Your task to perform on an android device: turn off priority inbox in the gmail app Image 0: 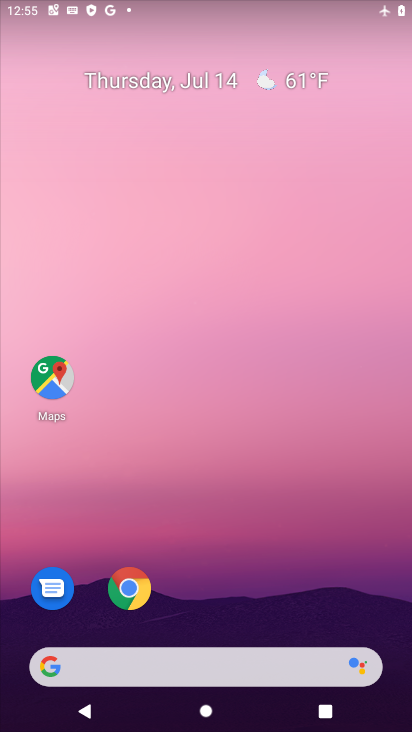
Step 0: drag from (225, 492) to (226, 13)
Your task to perform on an android device: turn off priority inbox in the gmail app Image 1: 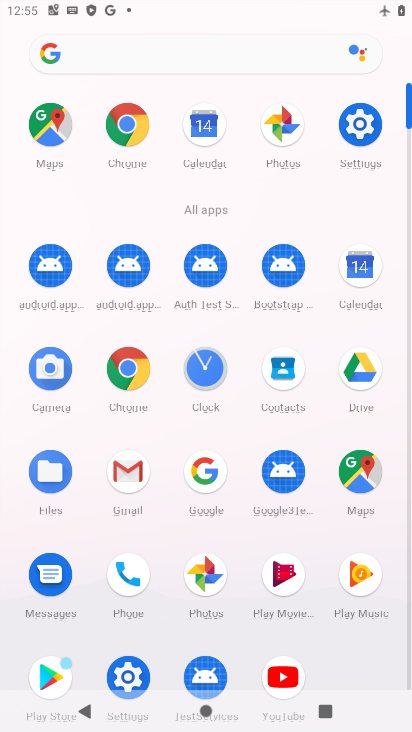
Step 1: click (134, 483)
Your task to perform on an android device: turn off priority inbox in the gmail app Image 2: 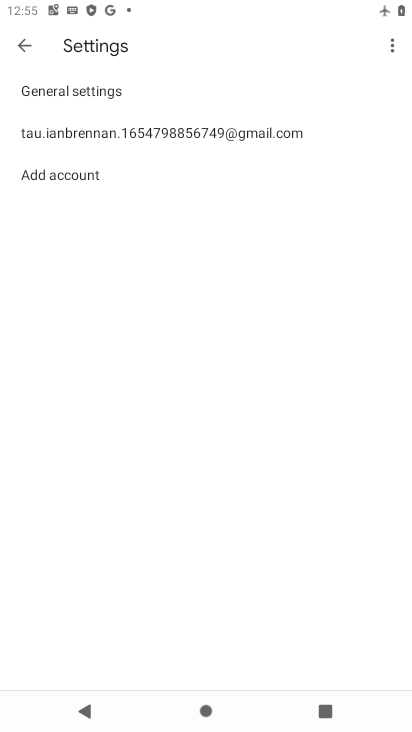
Step 2: click (141, 131)
Your task to perform on an android device: turn off priority inbox in the gmail app Image 3: 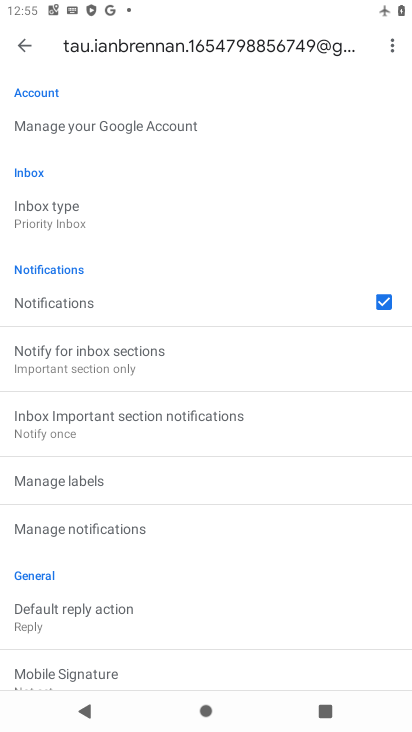
Step 3: click (89, 226)
Your task to perform on an android device: turn off priority inbox in the gmail app Image 4: 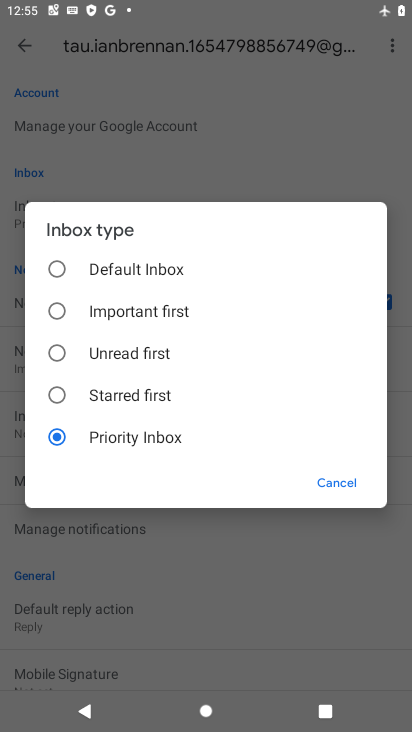
Step 4: click (105, 267)
Your task to perform on an android device: turn off priority inbox in the gmail app Image 5: 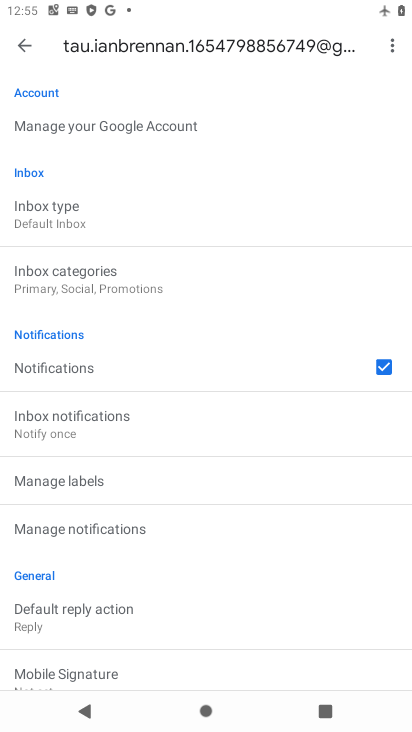
Step 5: task complete